Your task to perform on an android device: Open the calendar and show me this week's events? Image 0: 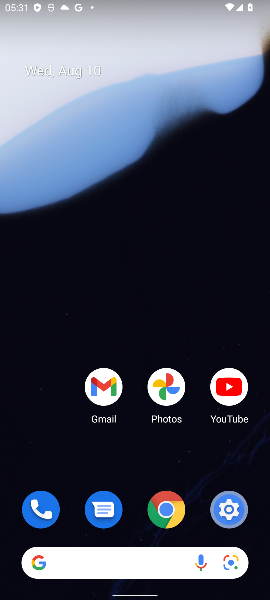
Step 0: drag from (111, 460) to (202, 160)
Your task to perform on an android device: Open the calendar and show me this week's events? Image 1: 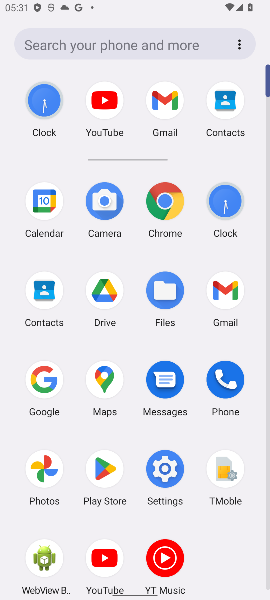
Step 1: click (38, 194)
Your task to perform on an android device: Open the calendar and show me this week's events? Image 2: 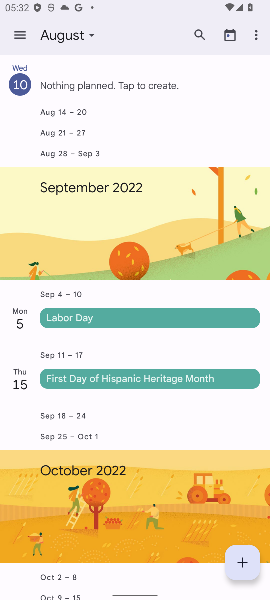
Step 2: click (17, 31)
Your task to perform on an android device: Open the calendar and show me this week's events? Image 3: 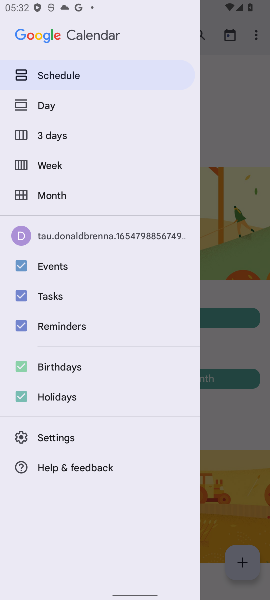
Step 3: click (52, 168)
Your task to perform on an android device: Open the calendar and show me this week's events? Image 4: 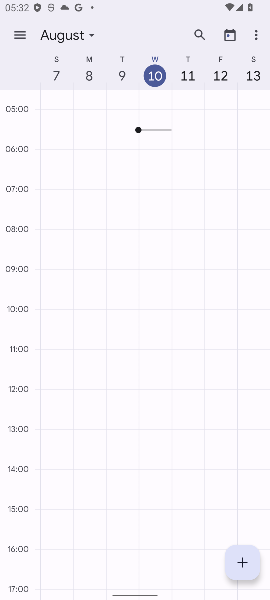
Step 4: task complete